Your task to perform on an android device: Set an alarm for 2pm Image 0: 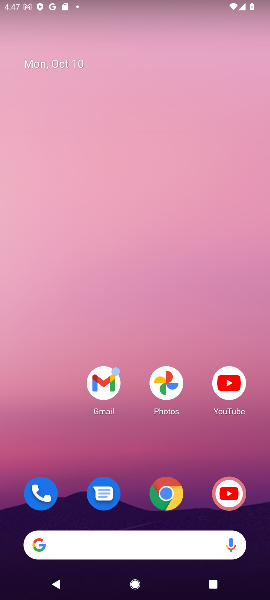
Step 0: drag from (134, 522) to (157, 19)
Your task to perform on an android device: Set an alarm for 2pm Image 1: 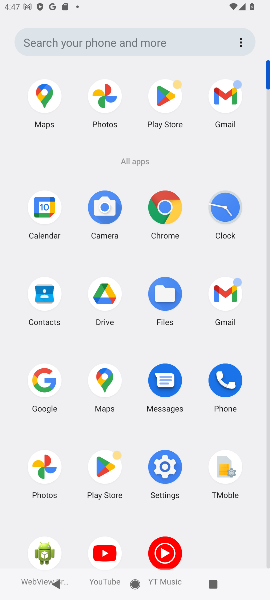
Step 1: click (227, 224)
Your task to perform on an android device: Set an alarm for 2pm Image 2: 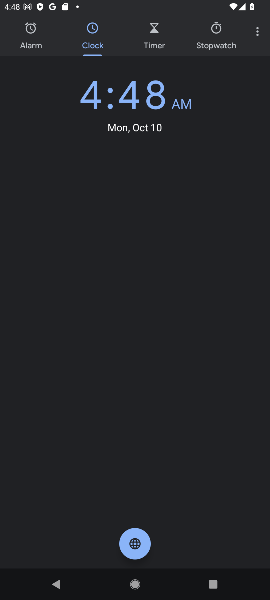
Step 2: click (23, 30)
Your task to perform on an android device: Set an alarm for 2pm Image 3: 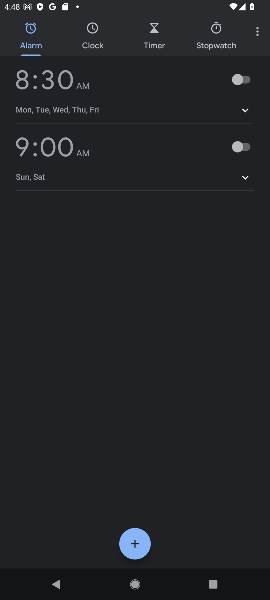
Step 3: click (144, 537)
Your task to perform on an android device: Set an alarm for 2pm Image 4: 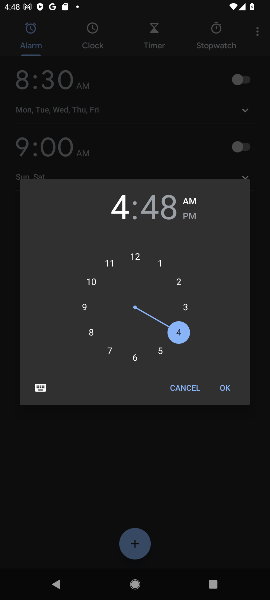
Step 4: click (177, 273)
Your task to perform on an android device: Set an alarm for 2pm Image 5: 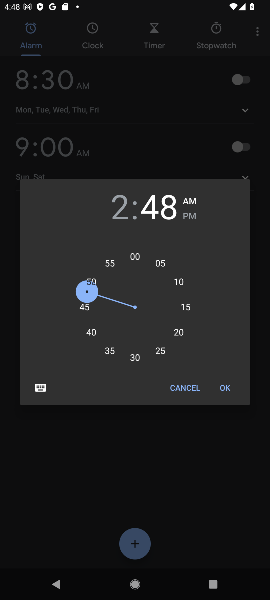
Step 5: click (141, 255)
Your task to perform on an android device: Set an alarm for 2pm Image 6: 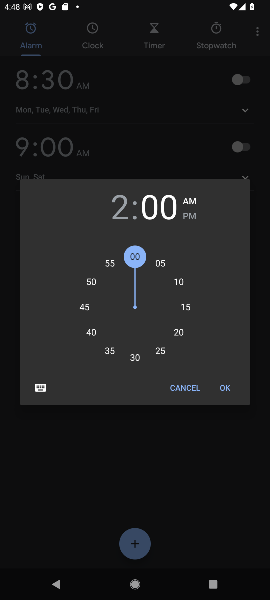
Step 6: click (181, 220)
Your task to perform on an android device: Set an alarm for 2pm Image 7: 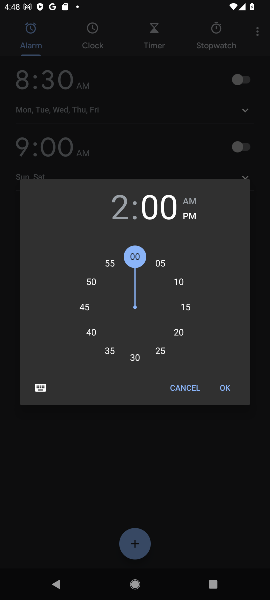
Step 7: click (233, 390)
Your task to perform on an android device: Set an alarm for 2pm Image 8: 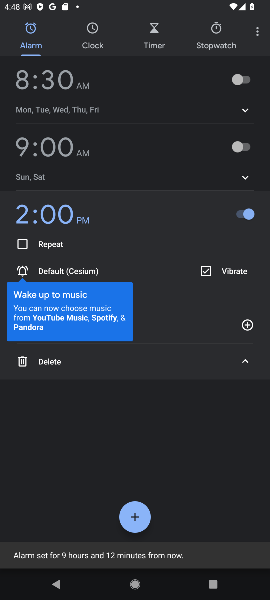
Step 8: task complete